Your task to perform on an android device: change alarm snooze length Image 0: 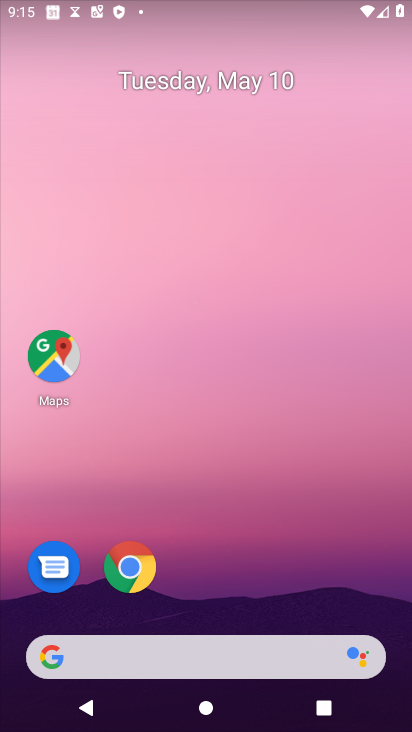
Step 0: drag from (68, 510) to (257, 78)
Your task to perform on an android device: change alarm snooze length Image 1: 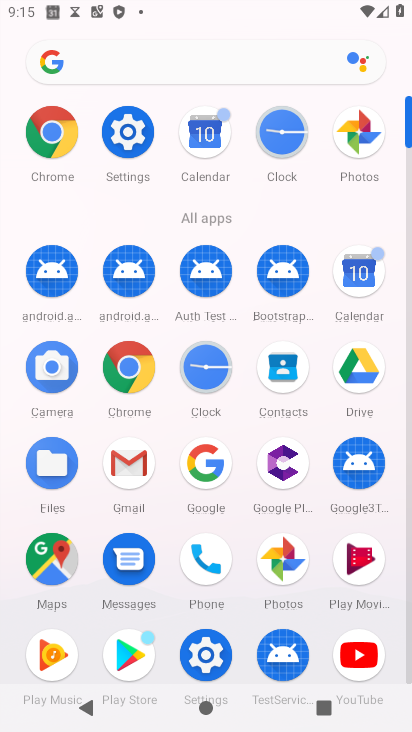
Step 1: click (201, 380)
Your task to perform on an android device: change alarm snooze length Image 2: 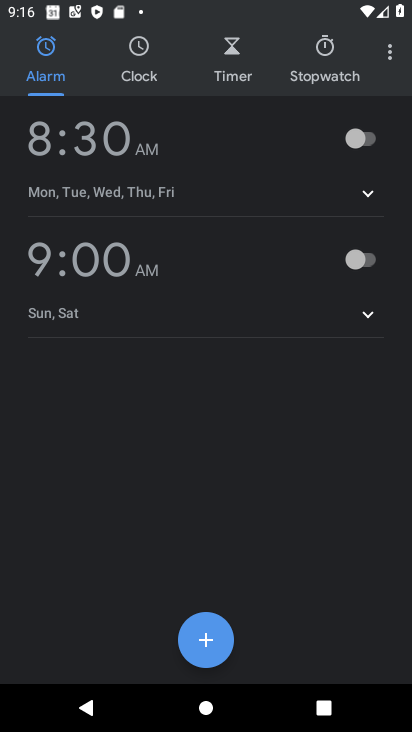
Step 2: click (382, 54)
Your task to perform on an android device: change alarm snooze length Image 3: 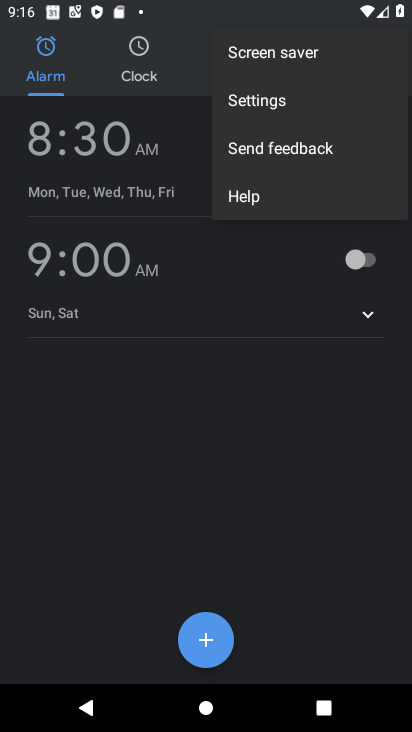
Step 3: click (302, 98)
Your task to perform on an android device: change alarm snooze length Image 4: 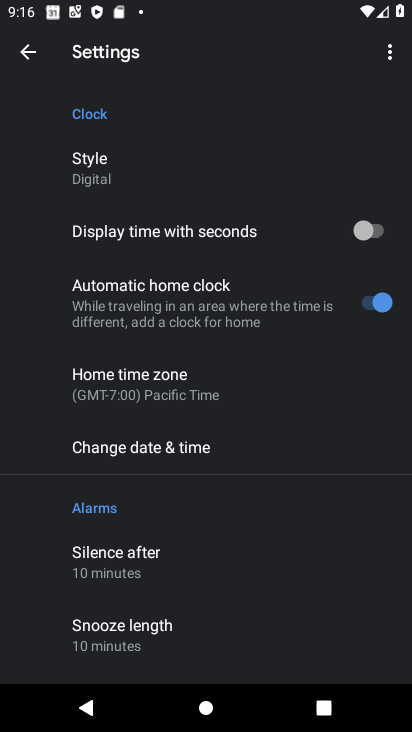
Step 4: click (155, 623)
Your task to perform on an android device: change alarm snooze length Image 5: 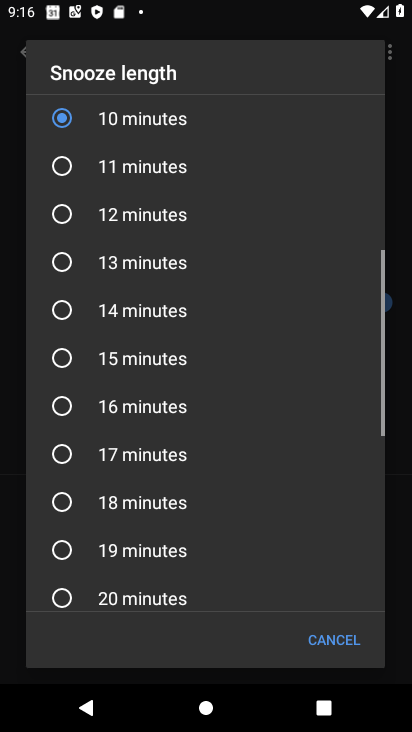
Step 5: click (135, 174)
Your task to perform on an android device: change alarm snooze length Image 6: 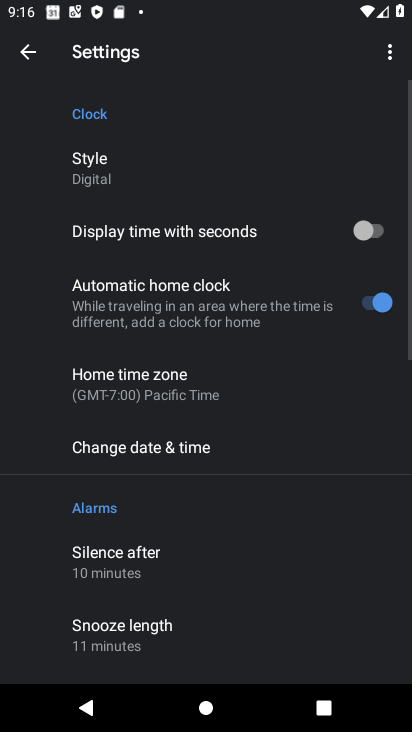
Step 6: task complete